Your task to perform on an android device: install app "HBO Max: Stream TV & Movies" Image 0: 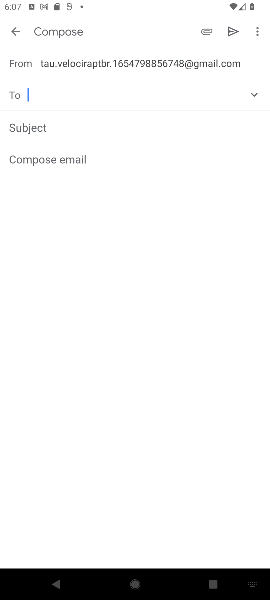
Step 0: press home button
Your task to perform on an android device: install app "HBO Max: Stream TV & Movies" Image 1: 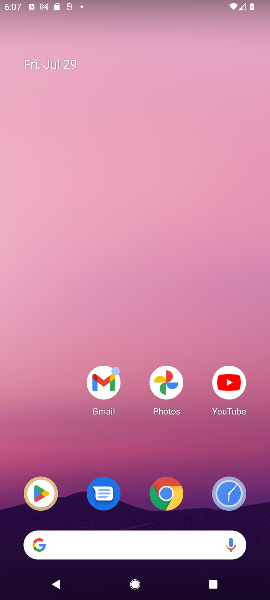
Step 1: drag from (150, 588) to (145, 129)
Your task to perform on an android device: install app "HBO Max: Stream TV & Movies" Image 2: 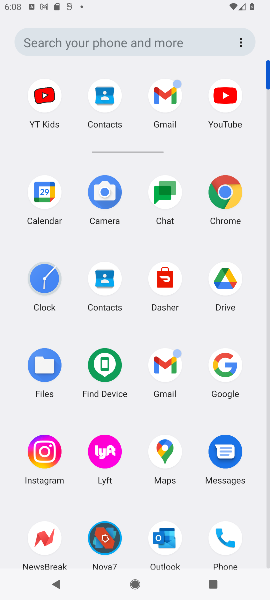
Step 2: click (132, 334)
Your task to perform on an android device: install app "HBO Max: Stream TV & Movies" Image 3: 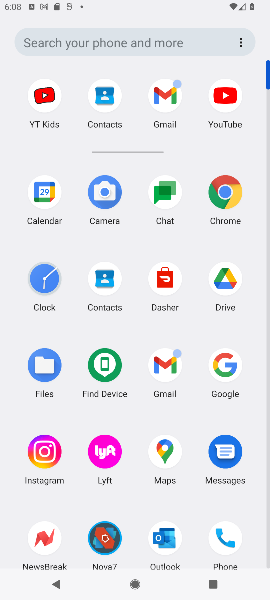
Step 3: click (133, 512)
Your task to perform on an android device: install app "HBO Max: Stream TV & Movies" Image 4: 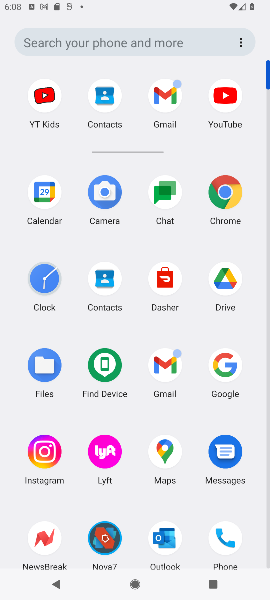
Step 4: drag from (133, 363) to (133, 274)
Your task to perform on an android device: install app "HBO Max: Stream TV & Movies" Image 5: 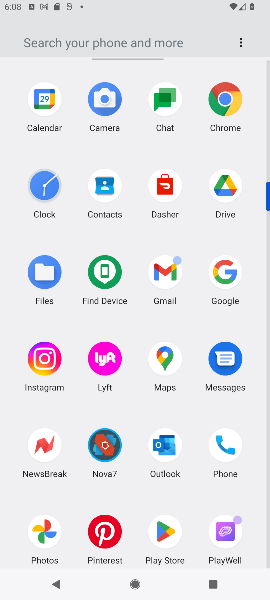
Step 5: click (160, 532)
Your task to perform on an android device: install app "HBO Max: Stream TV & Movies" Image 6: 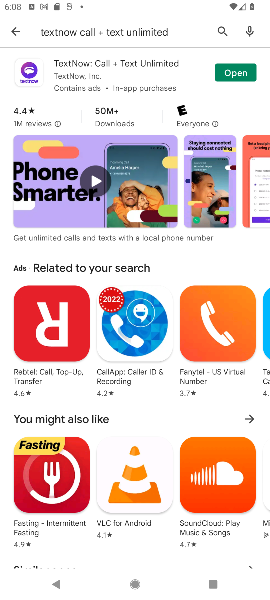
Step 6: click (222, 28)
Your task to perform on an android device: install app "HBO Max: Stream TV & Movies" Image 7: 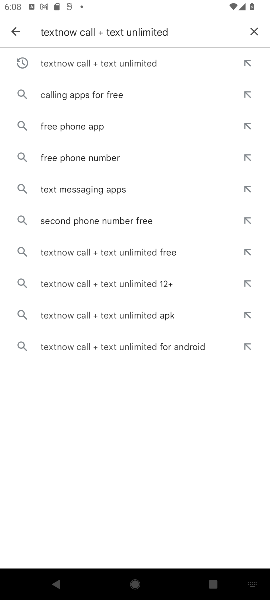
Step 7: click (253, 33)
Your task to perform on an android device: install app "HBO Max: Stream TV & Movies" Image 8: 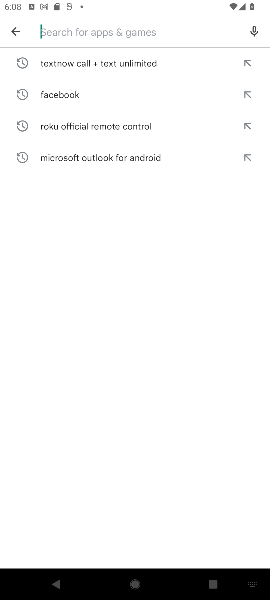
Step 8: type "TextNow: Call + Text Unlimited"
Your task to perform on an android device: install app "HBO Max: Stream TV & Movies" Image 9: 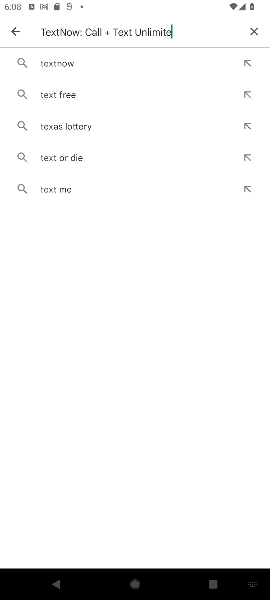
Step 9: type ""
Your task to perform on an android device: install app "HBO Max: Stream TV & Movies" Image 10: 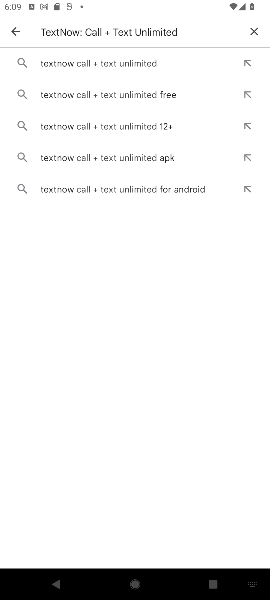
Step 10: click (141, 64)
Your task to perform on an android device: install app "HBO Max: Stream TV & Movies" Image 11: 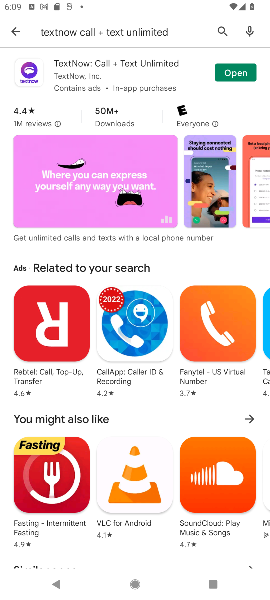
Step 11: click (217, 26)
Your task to perform on an android device: install app "HBO Max: Stream TV & Movies" Image 12: 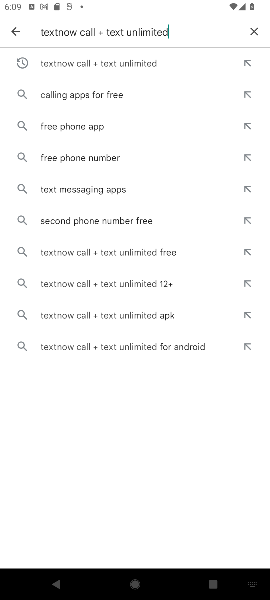
Step 12: click (252, 29)
Your task to perform on an android device: install app "HBO Max: Stream TV & Movies" Image 13: 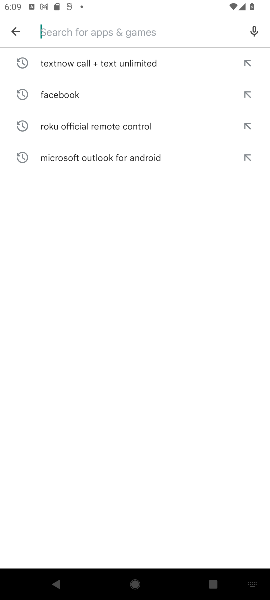
Step 13: type "HBO Max: Stream TV & Movies"
Your task to perform on an android device: install app "HBO Max: Stream TV & Movies" Image 14: 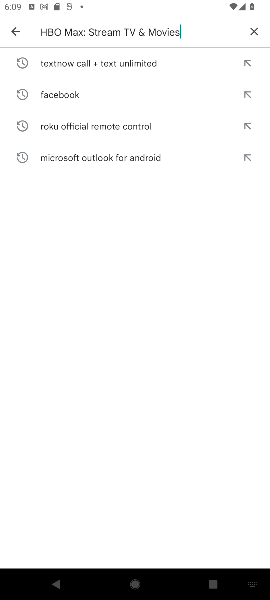
Step 14: type ""
Your task to perform on an android device: install app "HBO Max: Stream TV & Movies" Image 15: 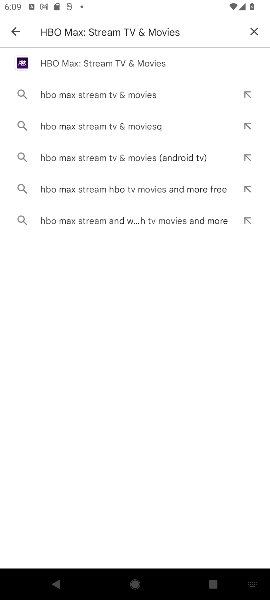
Step 15: click (88, 65)
Your task to perform on an android device: install app "HBO Max: Stream TV & Movies" Image 16: 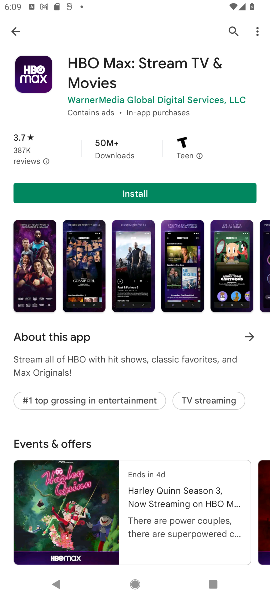
Step 16: click (147, 195)
Your task to perform on an android device: install app "HBO Max: Stream TV & Movies" Image 17: 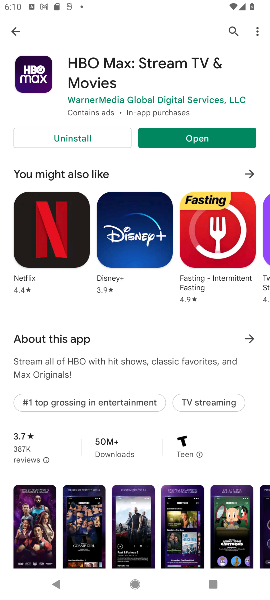
Step 17: task complete